Your task to perform on an android device: Go to Wikipedia Image 0: 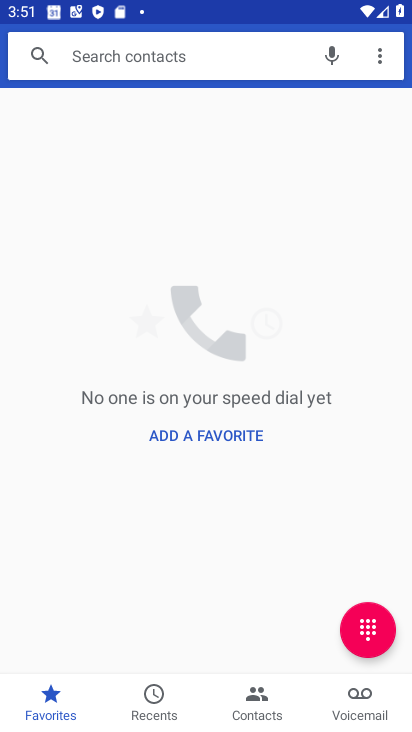
Step 0: drag from (233, 644) to (153, 95)
Your task to perform on an android device: Go to Wikipedia Image 1: 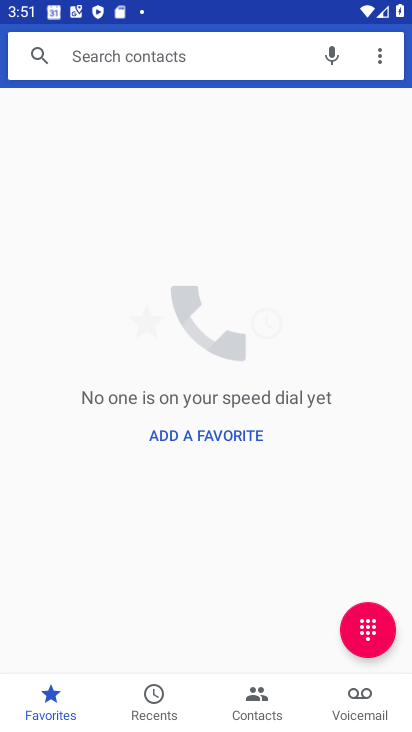
Step 1: press back button
Your task to perform on an android device: Go to Wikipedia Image 2: 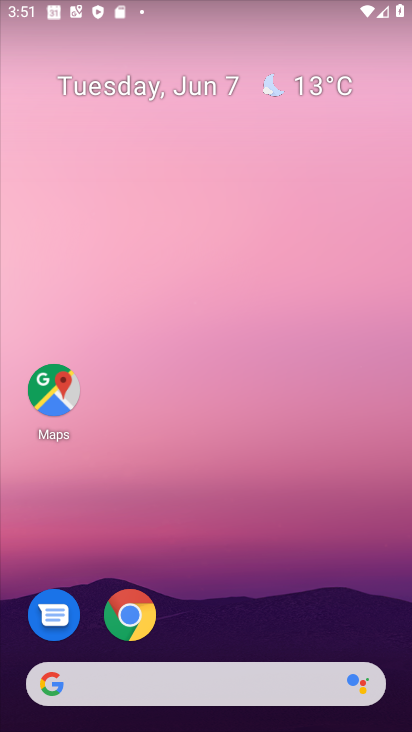
Step 2: drag from (196, 575) to (199, 706)
Your task to perform on an android device: Go to Wikipedia Image 3: 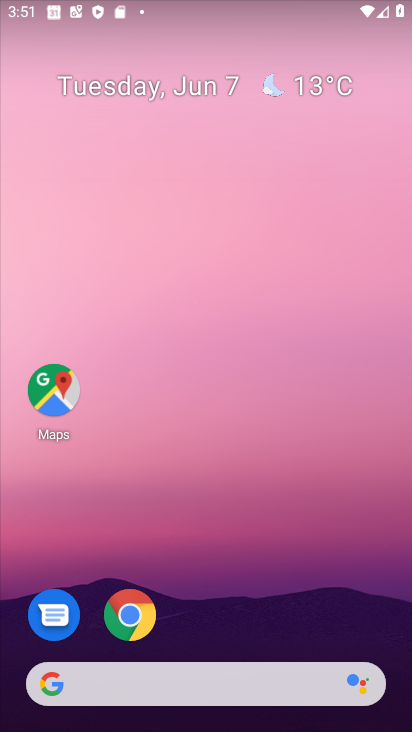
Step 3: drag from (236, 686) to (97, 121)
Your task to perform on an android device: Go to Wikipedia Image 4: 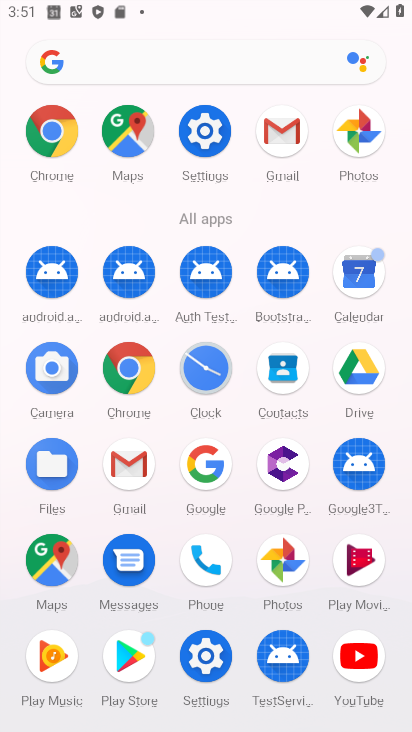
Step 4: click (134, 369)
Your task to perform on an android device: Go to Wikipedia Image 5: 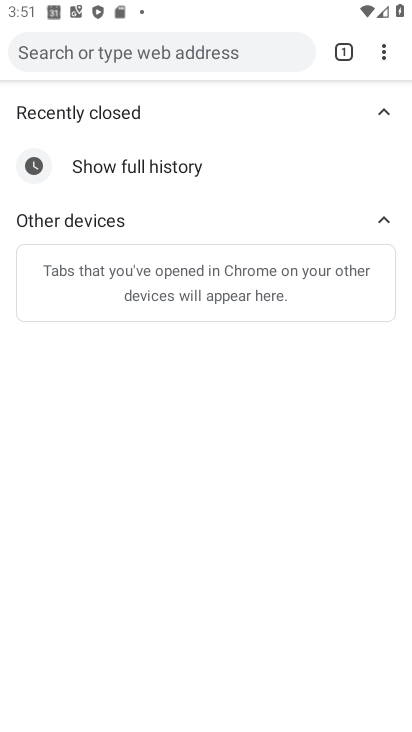
Step 5: click (384, 51)
Your task to perform on an android device: Go to Wikipedia Image 6: 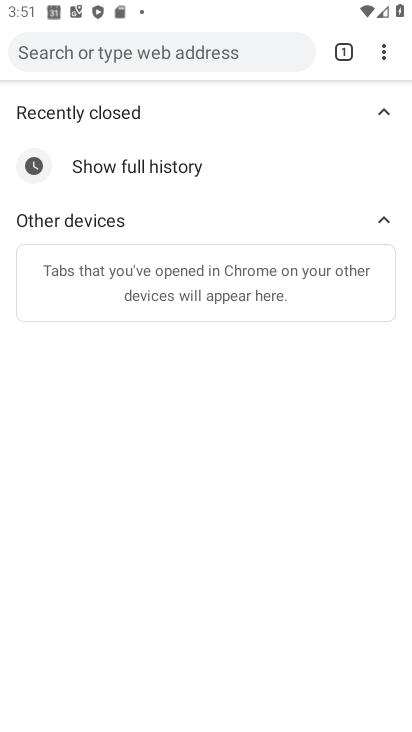
Step 6: drag from (380, 55) to (182, 153)
Your task to perform on an android device: Go to Wikipedia Image 7: 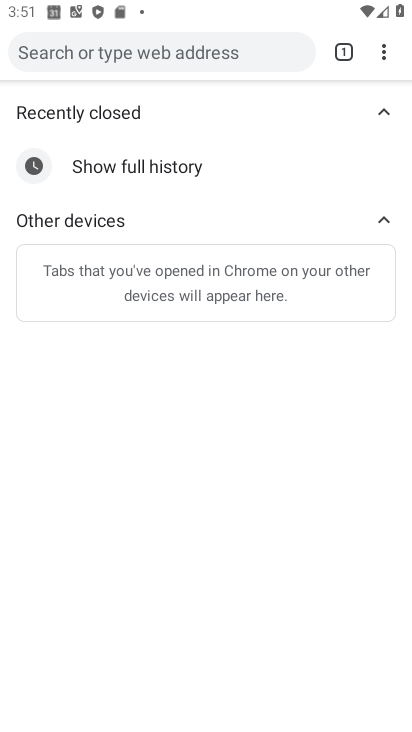
Step 7: click (182, 152)
Your task to perform on an android device: Go to Wikipedia Image 8: 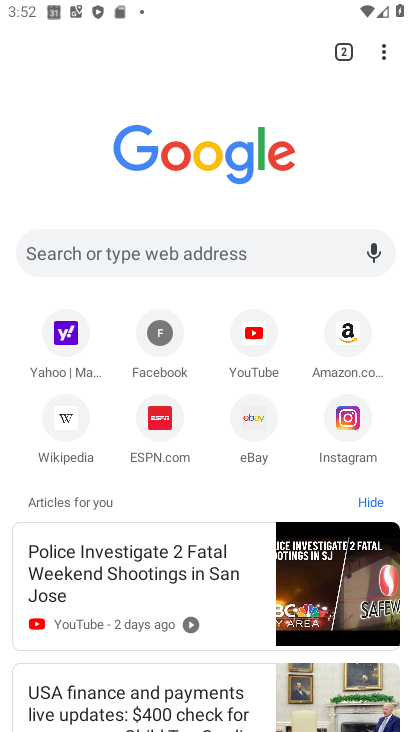
Step 8: click (69, 408)
Your task to perform on an android device: Go to Wikipedia Image 9: 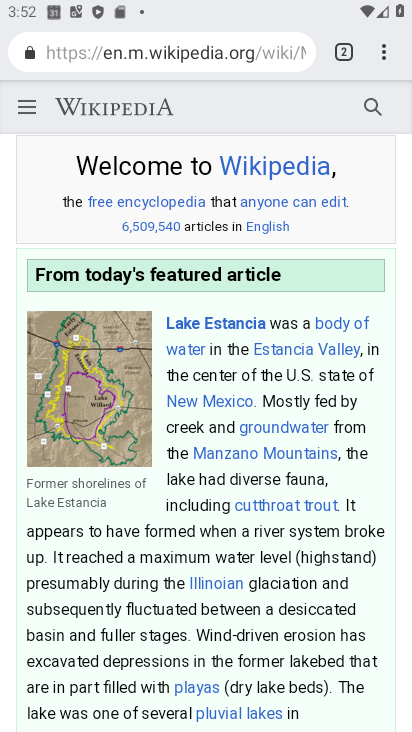
Step 9: task complete